Your task to perform on an android device: turn on wifi Image 0: 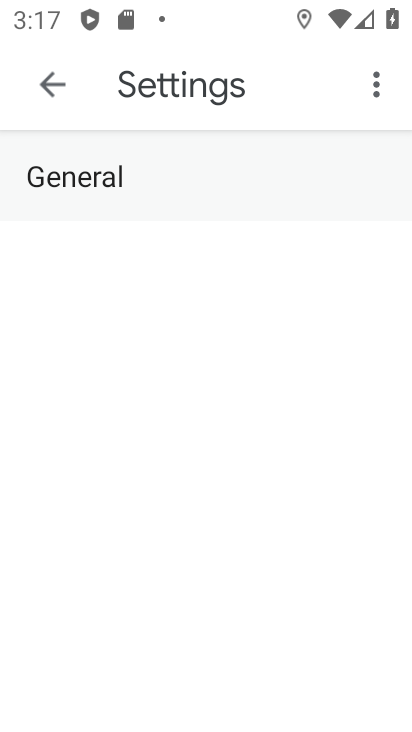
Step 0: press home button
Your task to perform on an android device: turn on wifi Image 1: 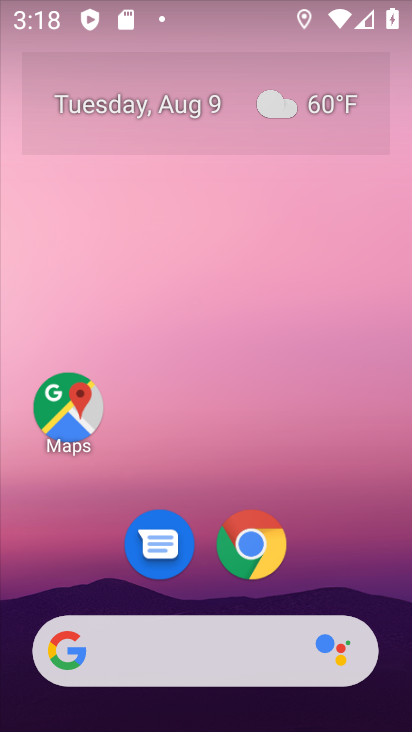
Step 1: drag from (72, 708) to (216, 287)
Your task to perform on an android device: turn on wifi Image 2: 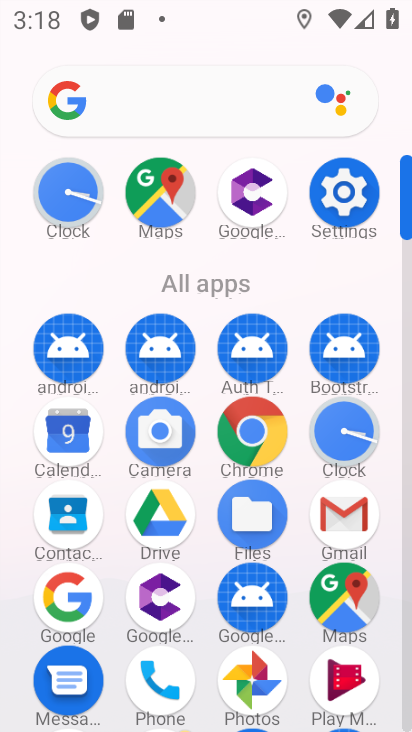
Step 2: click (335, 191)
Your task to perform on an android device: turn on wifi Image 3: 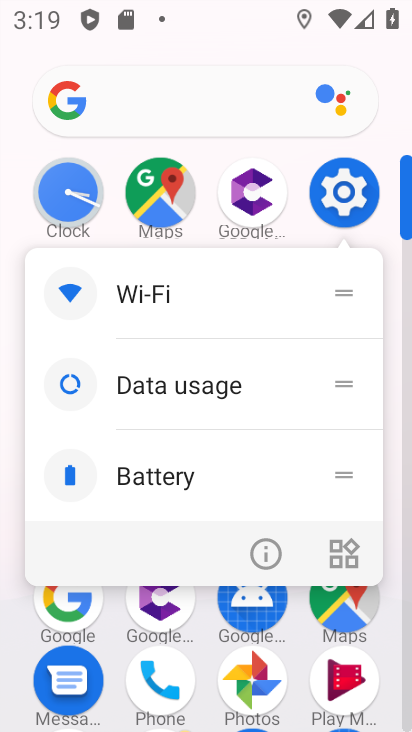
Step 3: click (201, 297)
Your task to perform on an android device: turn on wifi Image 4: 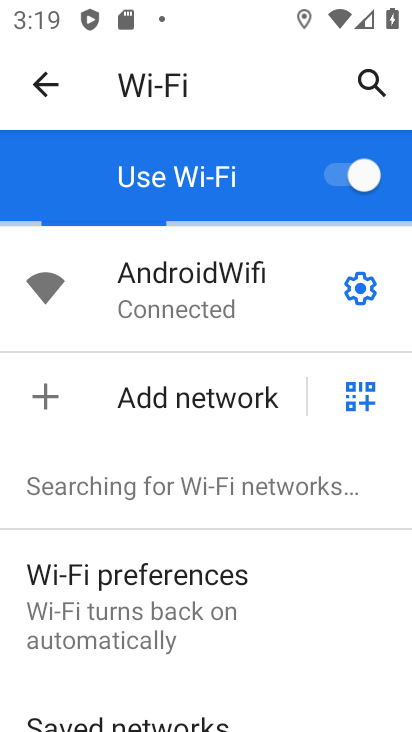
Step 4: task complete